Your task to perform on an android device: turn on location history Image 0: 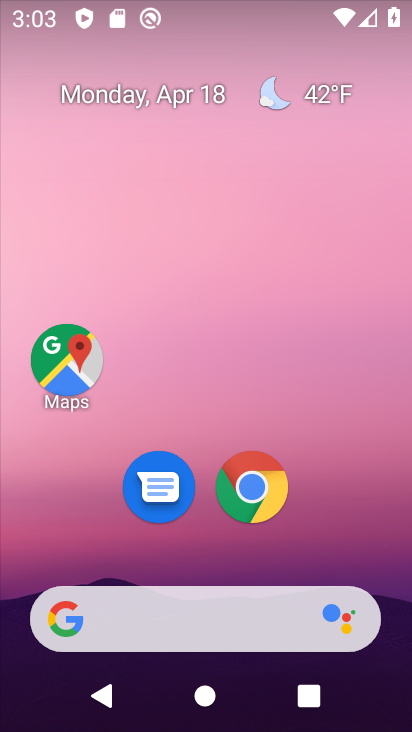
Step 0: drag from (203, 513) to (219, 93)
Your task to perform on an android device: turn on location history Image 1: 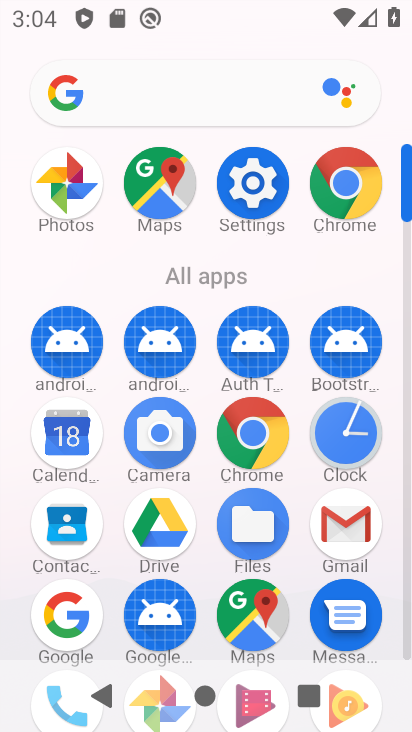
Step 1: click (255, 175)
Your task to perform on an android device: turn on location history Image 2: 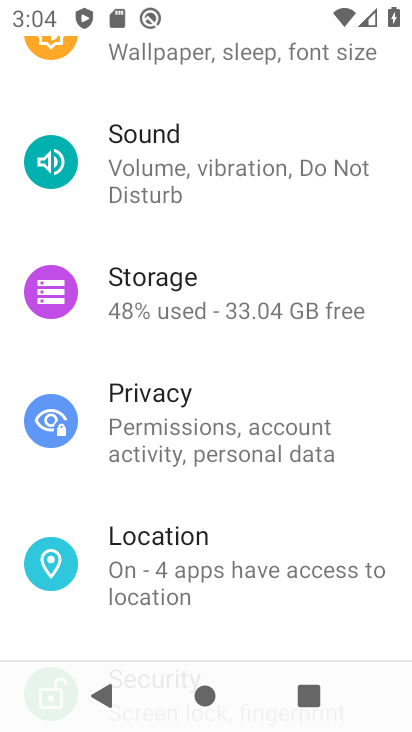
Step 2: click (217, 537)
Your task to perform on an android device: turn on location history Image 3: 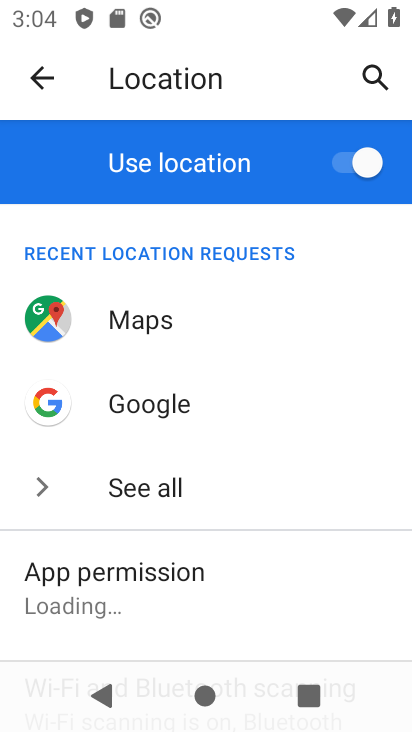
Step 3: drag from (233, 558) to (213, 159)
Your task to perform on an android device: turn on location history Image 4: 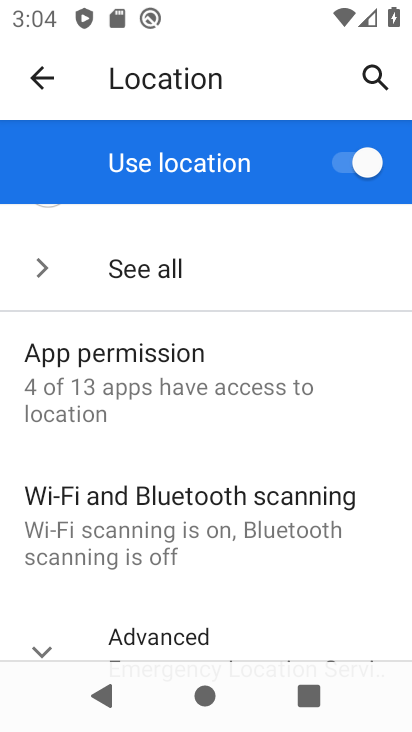
Step 4: drag from (200, 562) to (197, 301)
Your task to perform on an android device: turn on location history Image 5: 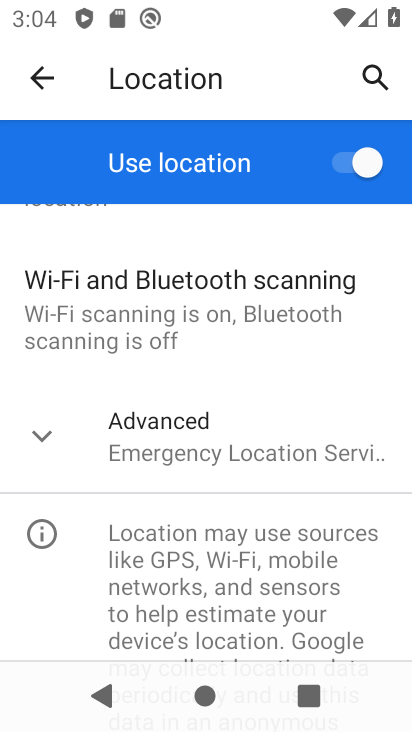
Step 5: click (210, 445)
Your task to perform on an android device: turn on location history Image 6: 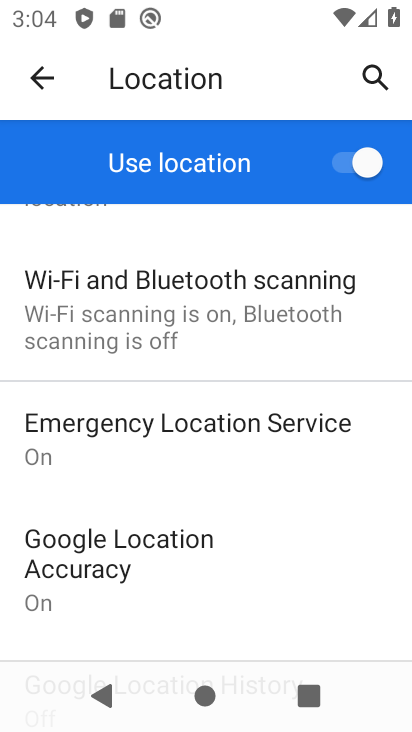
Step 6: drag from (238, 602) to (218, 344)
Your task to perform on an android device: turn on location history Image 7: 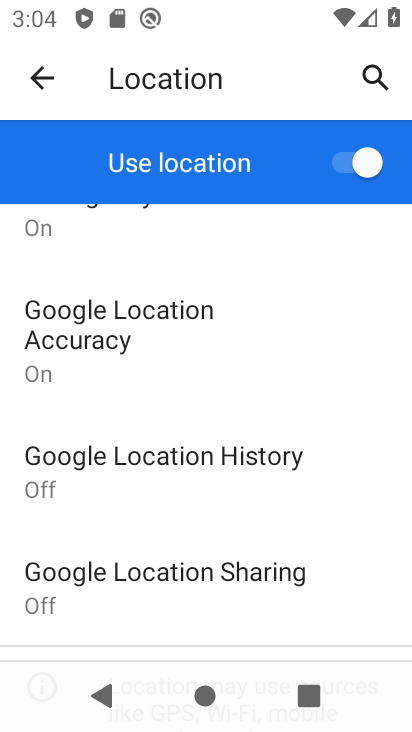
Step 7: click (230, 450)
Your task to perform on an android device: turn on location history Image 8: 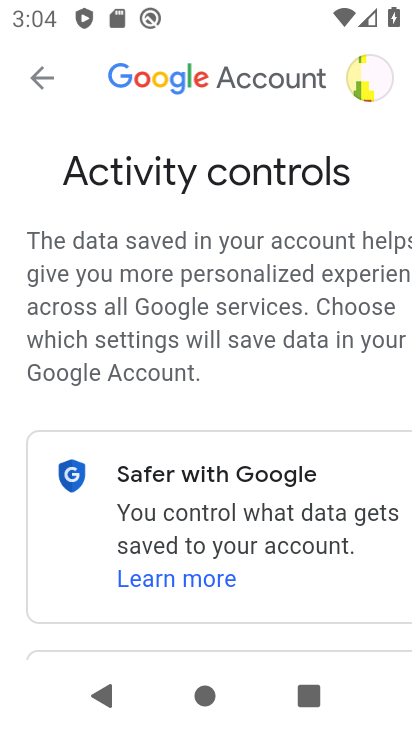
Step 8: drag from (244, 586) to (184, 241)
Your task to perform on an android device: turn on location history Image 9: 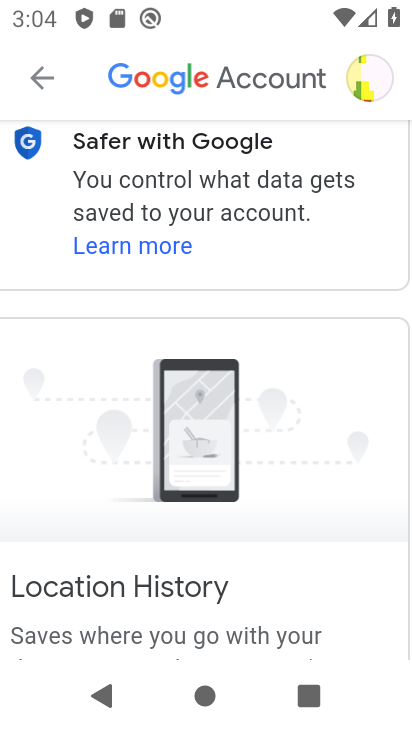
Step 9: drag from (228, 565) to (210, 214)
Your task to perform on an android device: turn on location history Image 10: 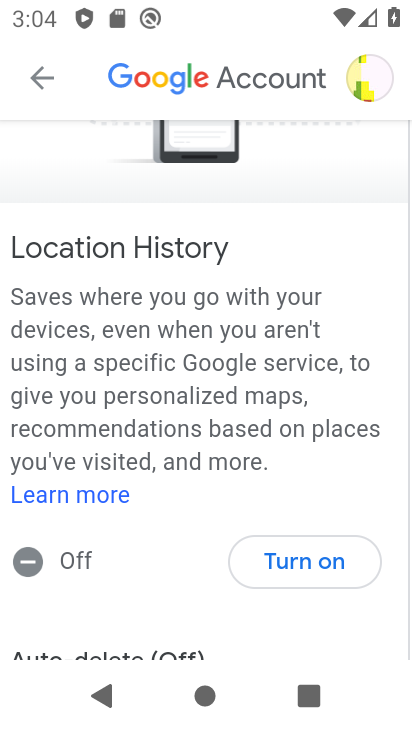
Step 10: click (295, 558)
Your task to perform on an android device: turn on location history Image 11: 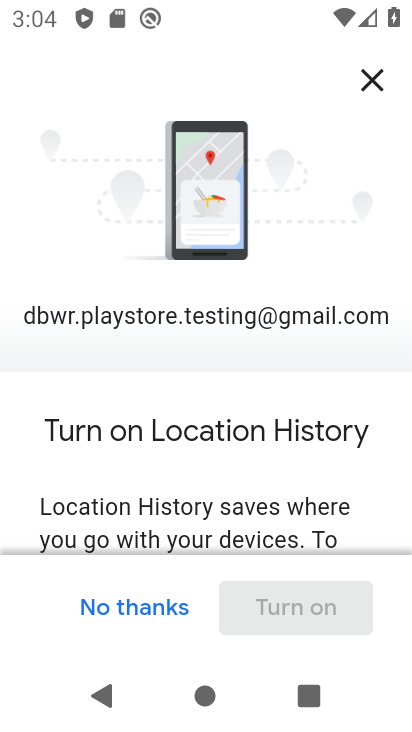
Step 11: drag from (272, 521) to (276, 175)
Your task to perform on an android device: turn on location history Image 12: 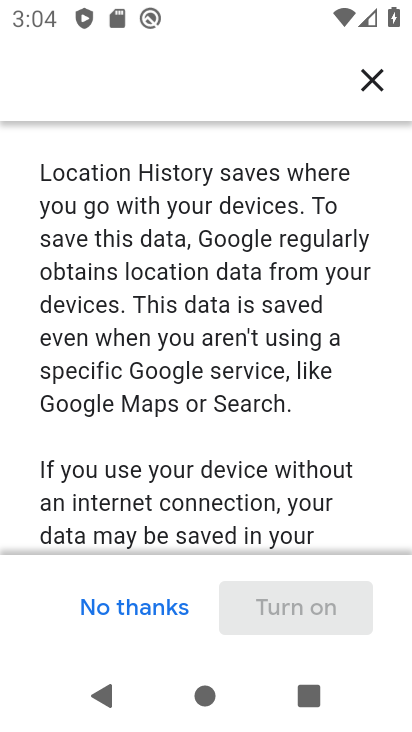
Step 12: drag from (217, 474) to (214, 163)
Your task to perform on an android device: turn on location history Image 13: 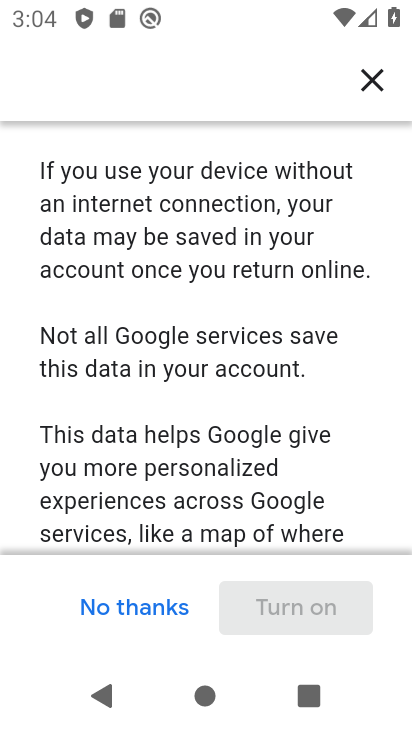
Step 13: drag from (206, 524) to (189, 221)
Your task to perform on an android device: turn on location history Image 14: 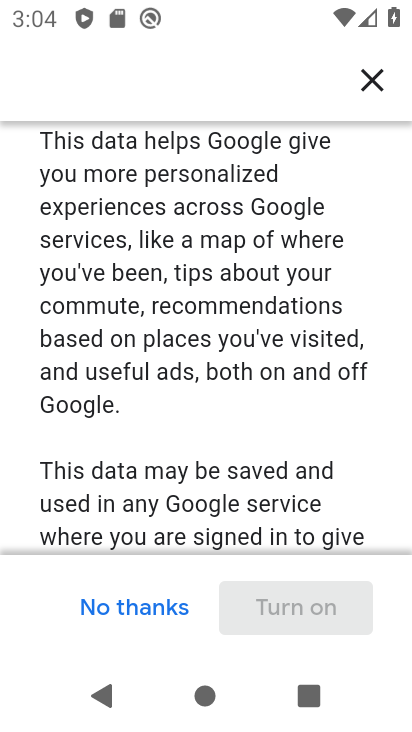
Step 14: drag from (230, 522) to (217, 184)
Your task to perform on an android device: turn on location history Image 15: 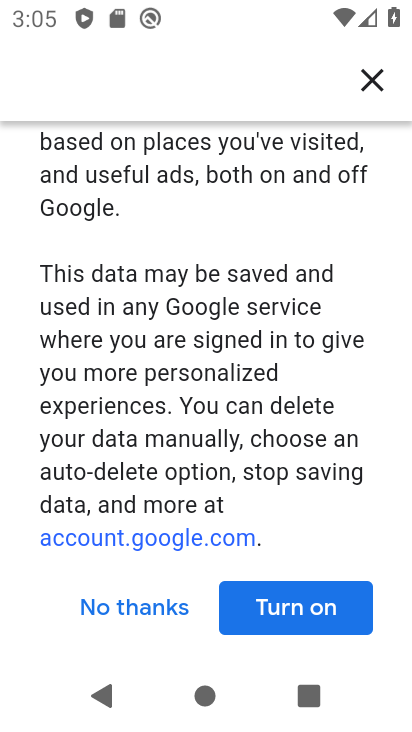
Step 15: click (274, 590)
Your task to perform on an android device: turn on location history Image 16: 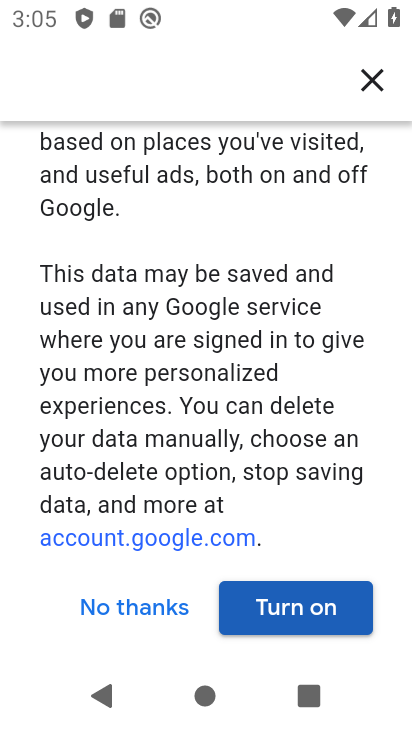
Step 16: click (270, 598)
Your task to perform on an android device: turn on location history Image 17: 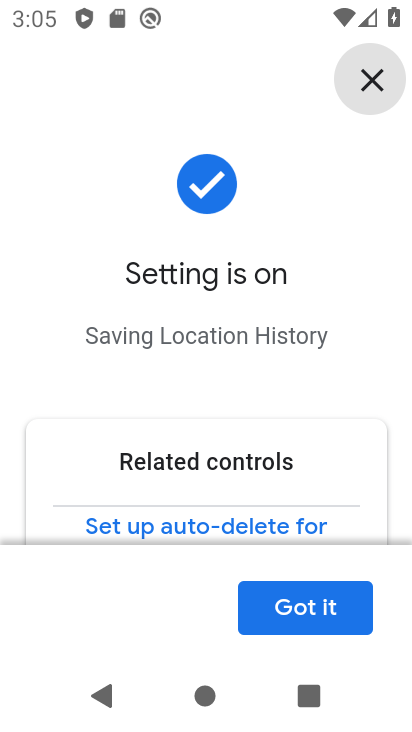
Step 17: click (279, 601)
Your task to perform on an android device: turn on location history Image 18: 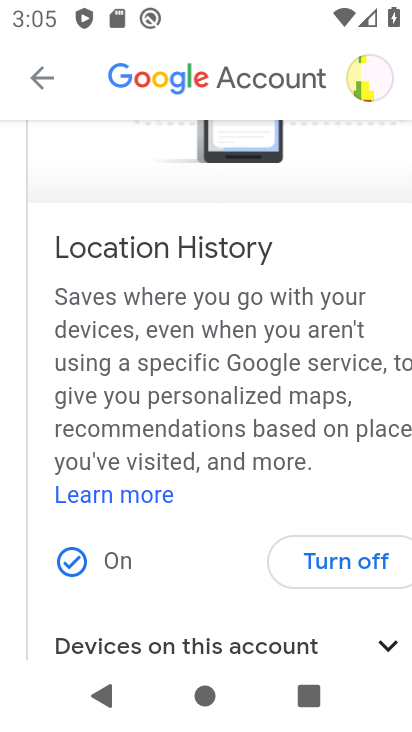
Step 18: task complete